Your task to perform on an android device: Show me the alarms in the clock app Image 0: 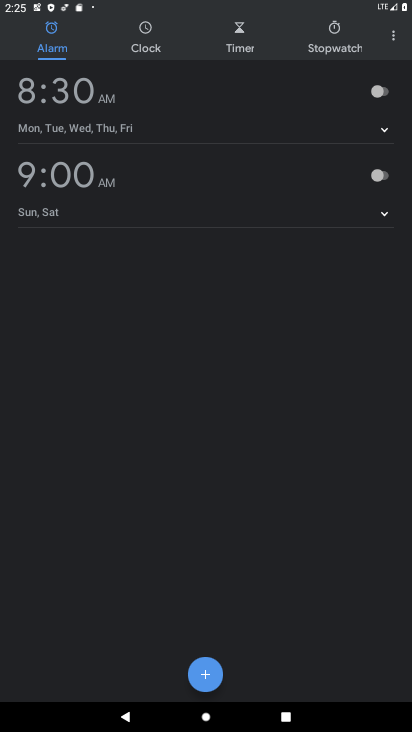
Step 0: press home button
Your task to perform on an android device: Show me the alarms in the clock app Image 1: 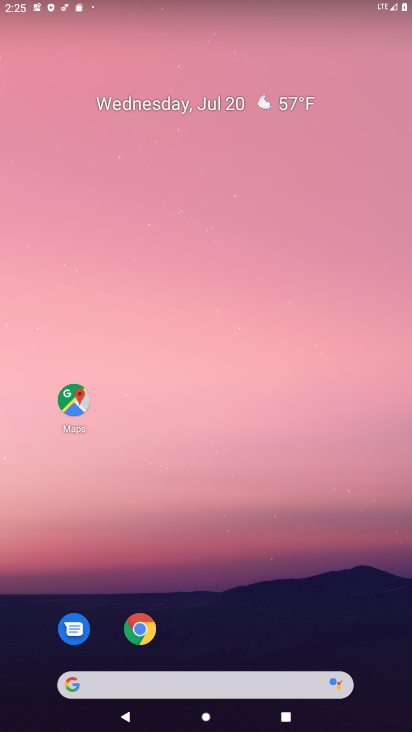
Step 1: drag from (204, 691) to (179, 169)
Your task to perform on an android device: Show me the alarms in the clock app Image 2: 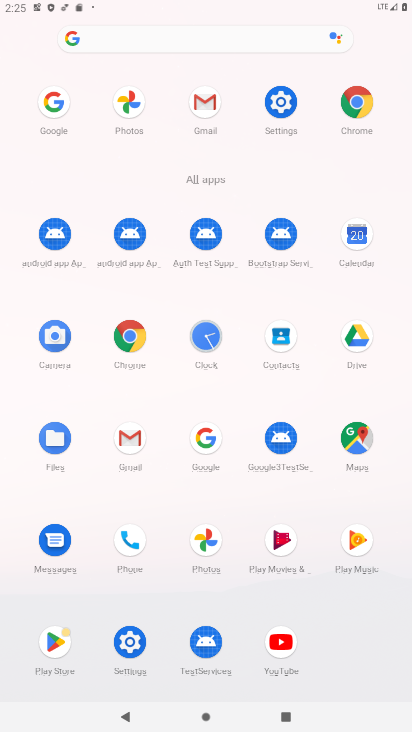
Step 2: click (204, 338)
Your task to perform on an android device: Show me the alarms in the clock app Image 3: 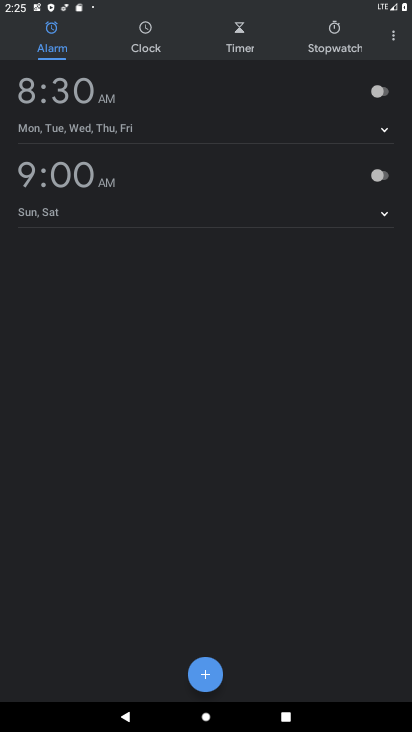
Step 3: task complete